Your task to perform on an android device: open device folders in google photos Image 0: 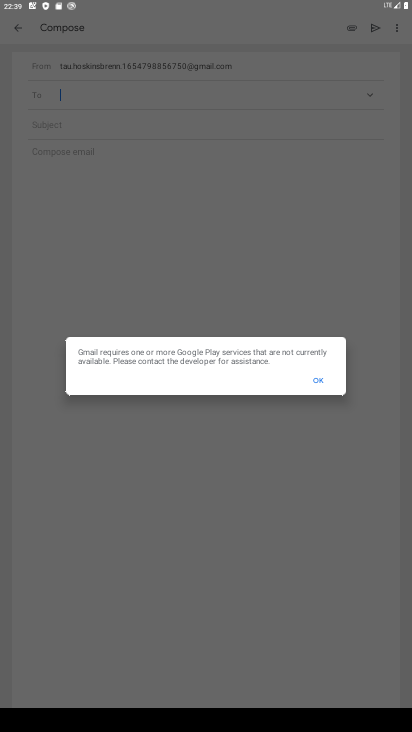
Step 0: press home button
Your task to perform on an android device: open device folders in google photos Image 1: 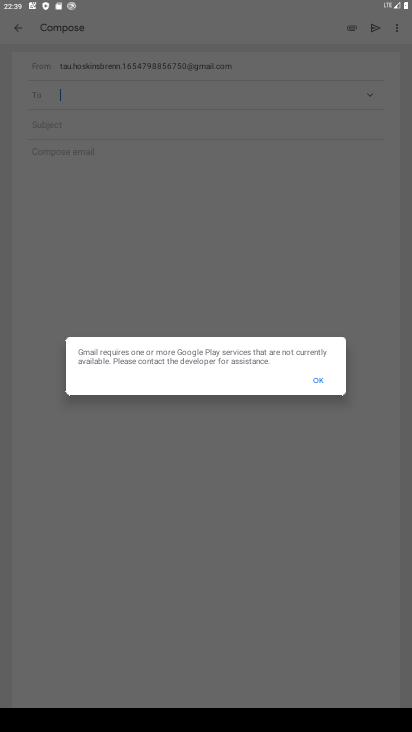
Step 1: press home button
Your task to perform on an android device: open device folders in google photos Image 2: 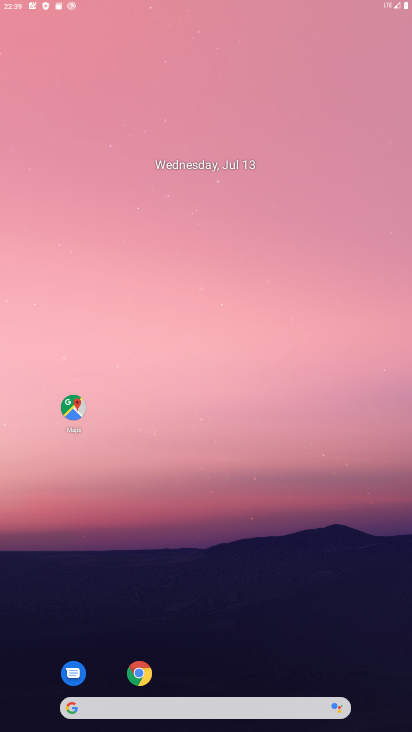
Step 2: drag from (181, 583) to (247, 255)
Your task to perform on an android device: open device folders in google photos Image 3: 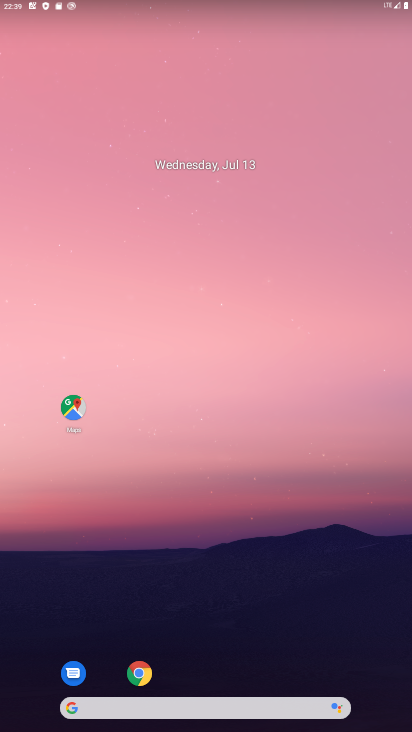
Step 3: drag from (192, 661) to (280, 178)
Your task to perform on an android device: open device folders in google photos Image 4: 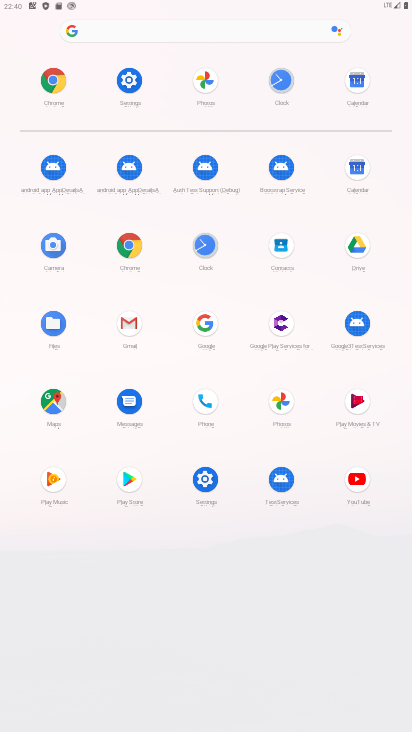
Step 4: click (271, 403)
Your task to perform on an android device: open device folders in google photos Image 5: 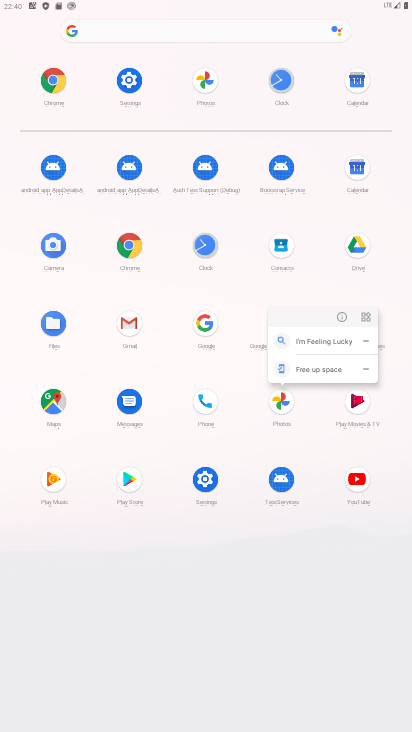
Step 5: click (343, 316)
Your task to perform on an android device: open device folders in google photos Image 6: 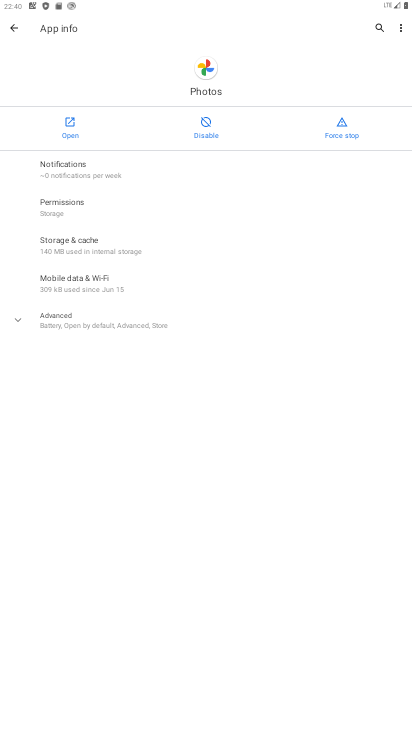
Step 6: click (70, 123)
Your task to perform on an android device: open device folders in google photos Image 7: 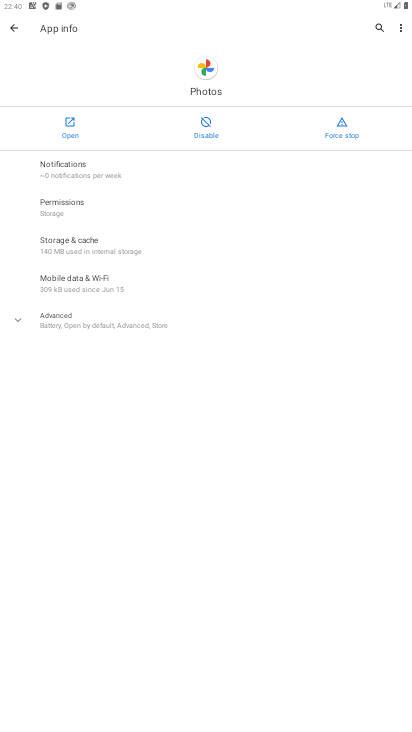
Step 7: click (70, 123)
Your task to perform on an android device: open device folders in google photos Image 8: 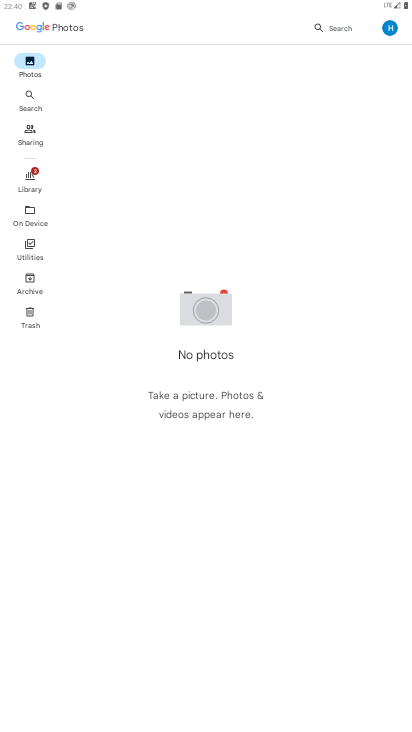
Step 8: click (390, 24)
Your task to perform on an android device: open device folders in google photos Image 9: 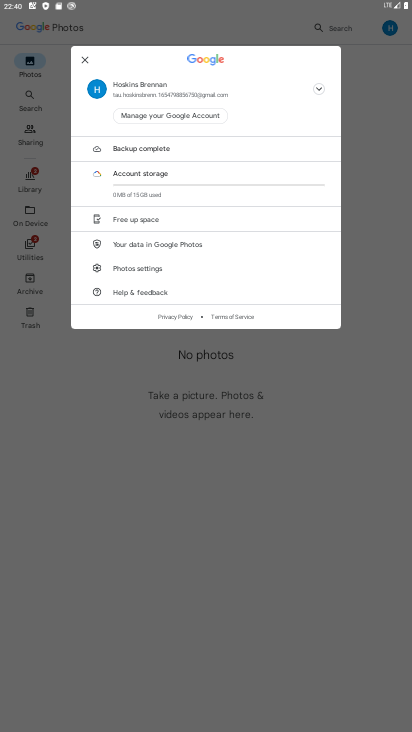
Step 9: click (155, 375)
Your task to perform on an android device: open device folders in google photos Image 10: 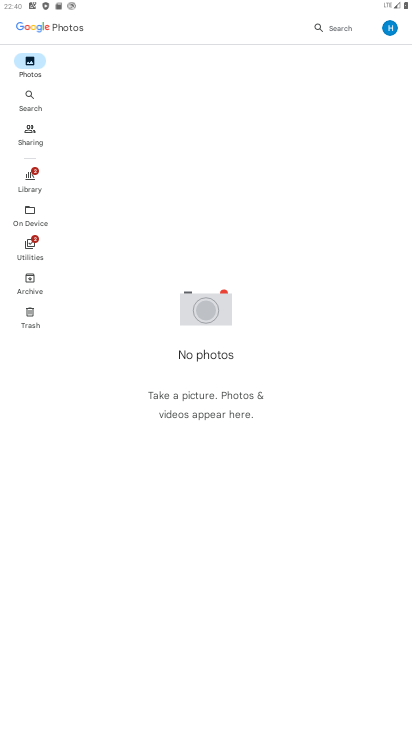
Step 10: click (26, 68)
Your task to perform on an android device: open device folders in google photos Image 11: 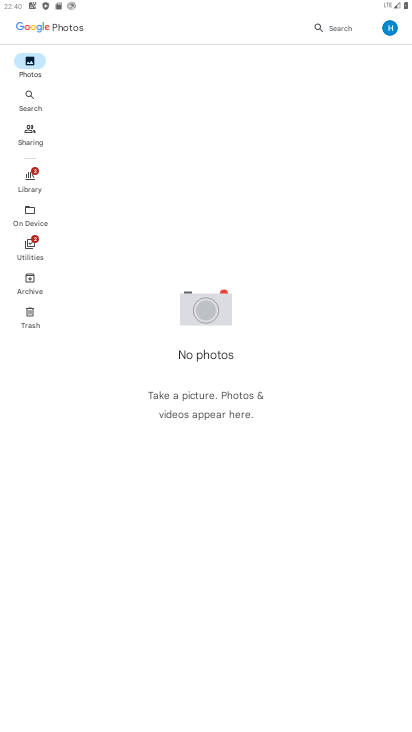
Step 11: click (26, 68)
Your task to perform on an android device: open device folders in google photos Image 12: 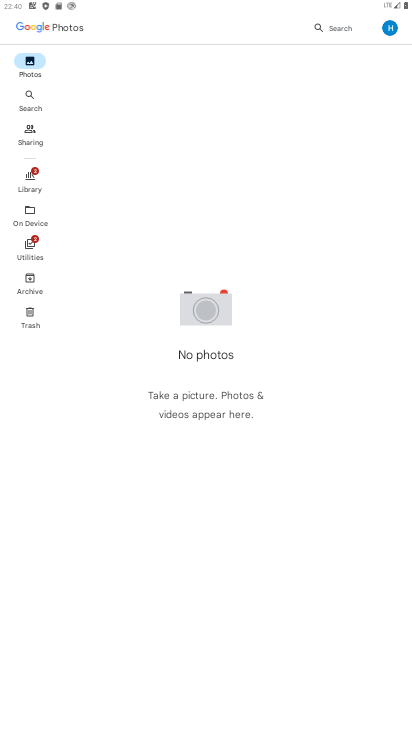
Step 12: click (26, 68)
Your task to perform on an android device: open device folders in google photos Image 13: 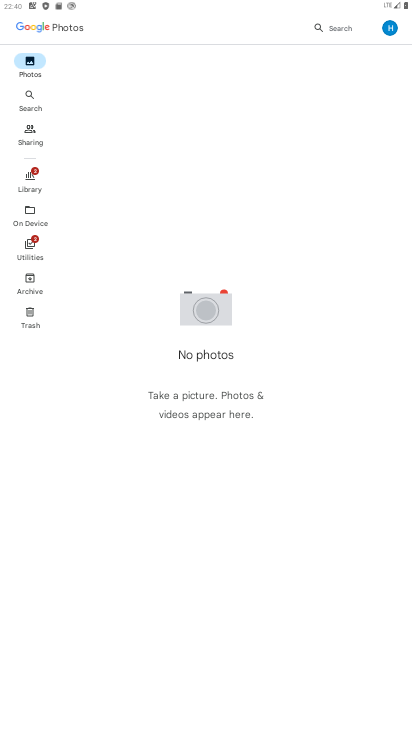
Step 13: click (26, 68)
Your task to perform on an android device: open device folders in google photos Image 14: 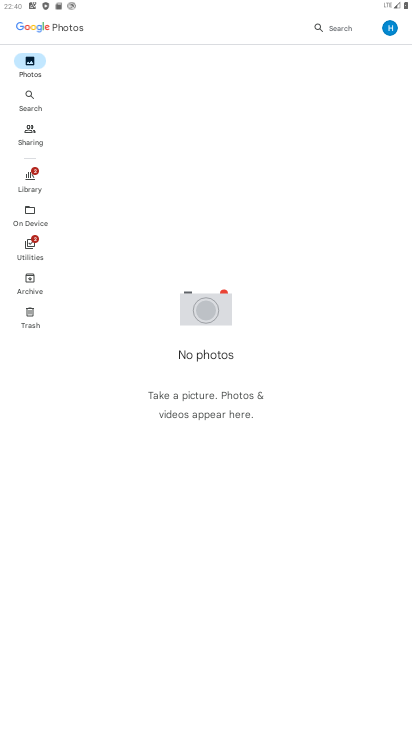
Step 14: click (26, 68)
Your task to perform on an android device: open device folders in google photos Image 15: 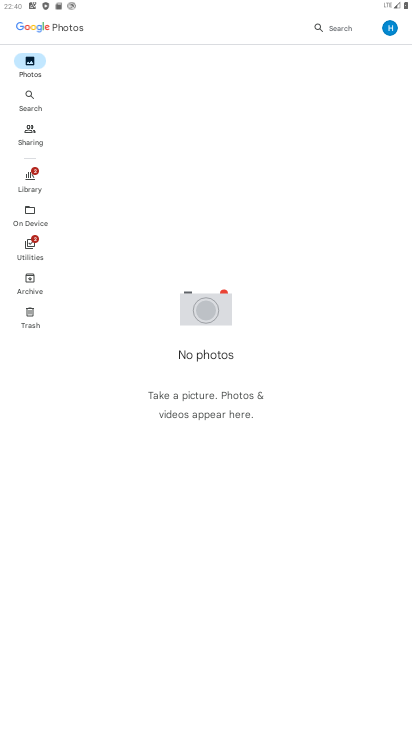
Step 15: task complete